Your task to perform on an android device: set an alarm Image 0: 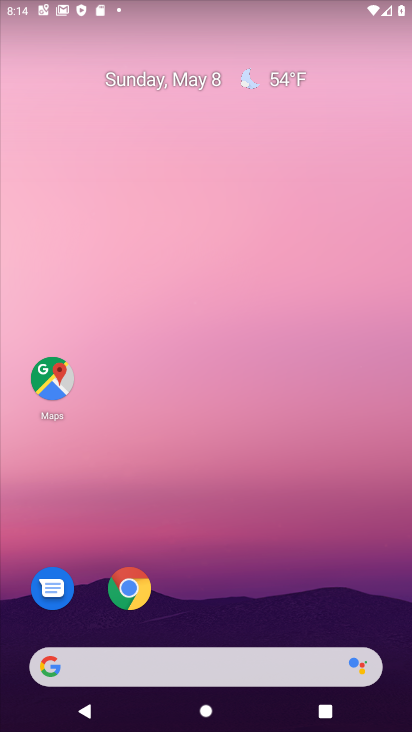
Step 0: drag from (274, 626) to (293, 50)
Your task to perform on an android device: set an alarm Image 1: 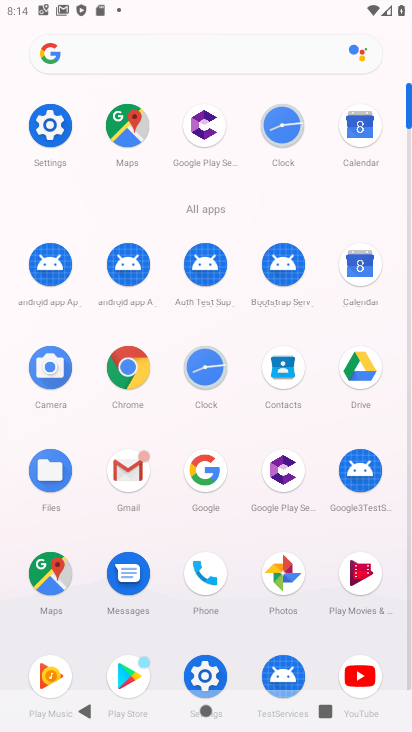
Step 1: click (216, 356)
Your task to perform on an android device: set an alarm Image 2: 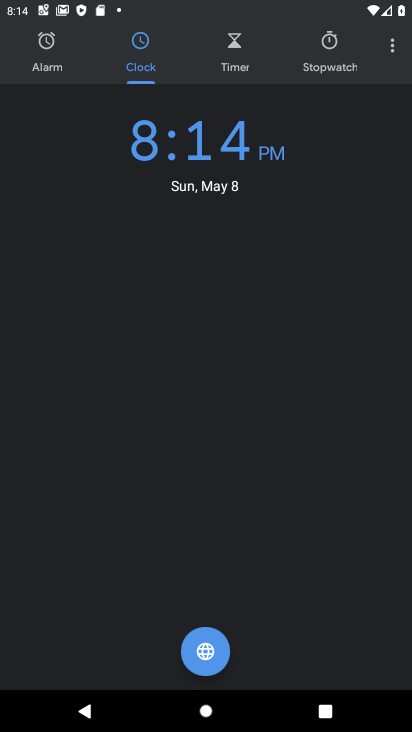
Step 2: click (44, 55)
Your task to perform on an android device: set an alarm Image 3: 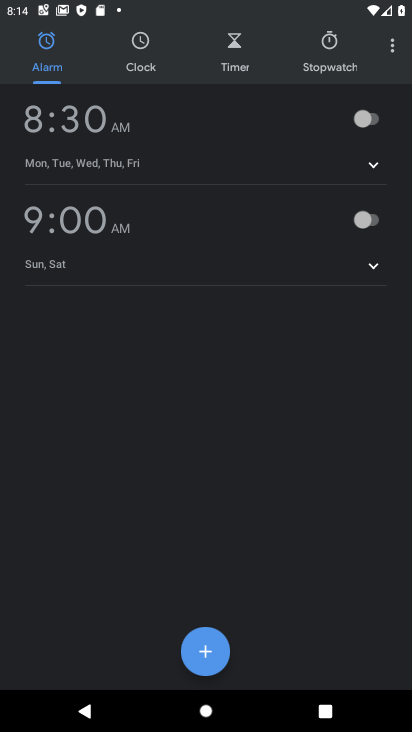
Step 3: click (199, 653)
Your task to perform on an android device: set an alarm Image 4: 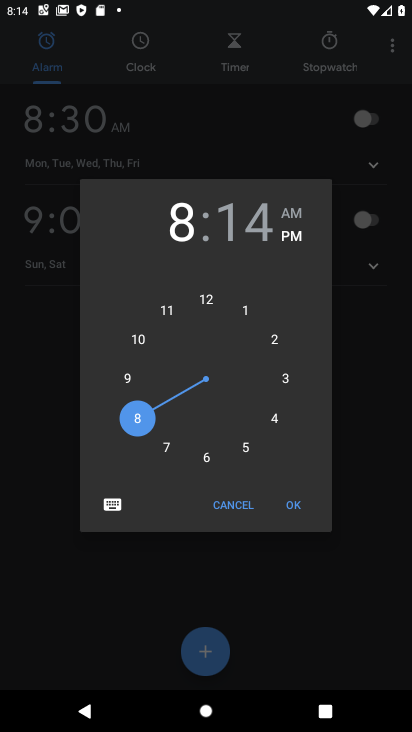
Step 4: click (209, 461)
Your task to perform on an android device: set an alarm Image 5: 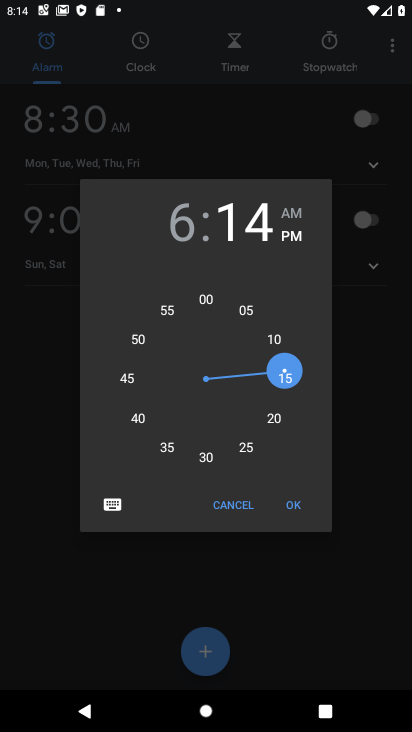
Step 5: click (277, 421)
Your task to perform on an android device: set an alarm Image 6: 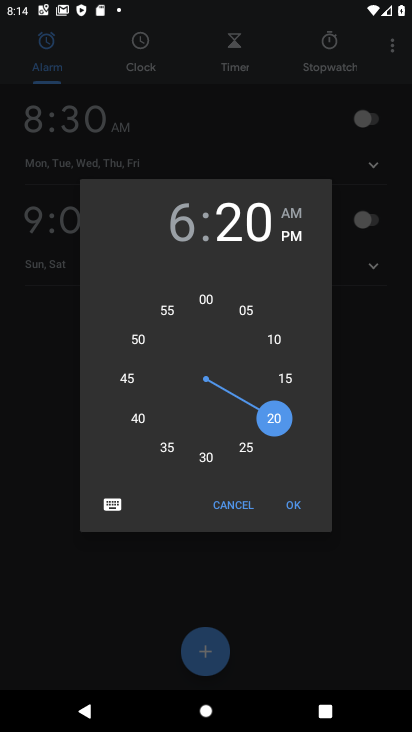
Step 6: click (293, 506)
Your task to perform on an android device: set an alarm Image 7: 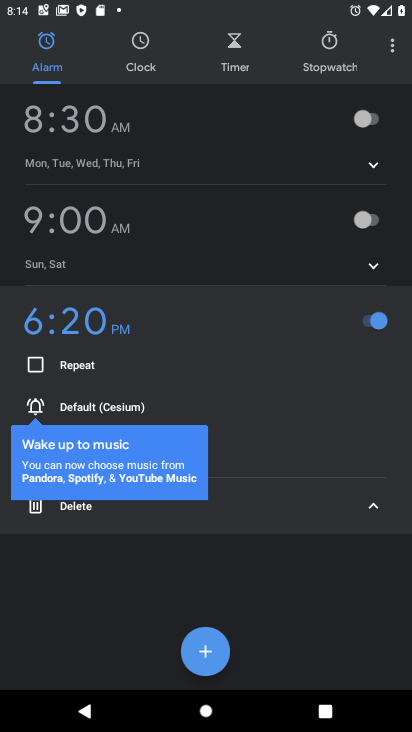
Step 7: task complete